Your task to perform on an android device: change alarm snooze length Image 0: 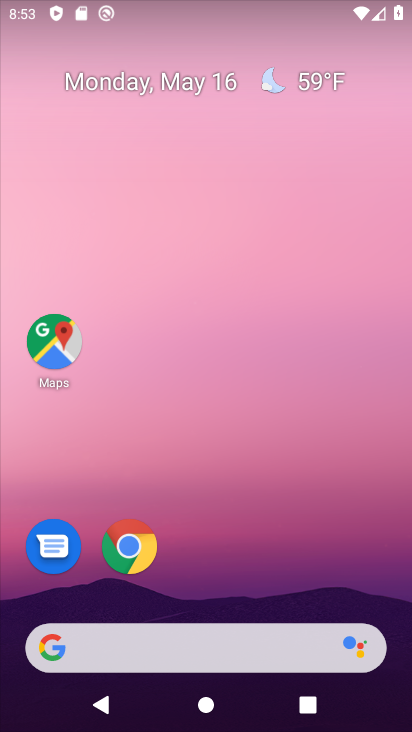
Step 0: drag from (316, 610) to (271, 165)
Your task to perform on an android device: change alarm snooze length Image 1: 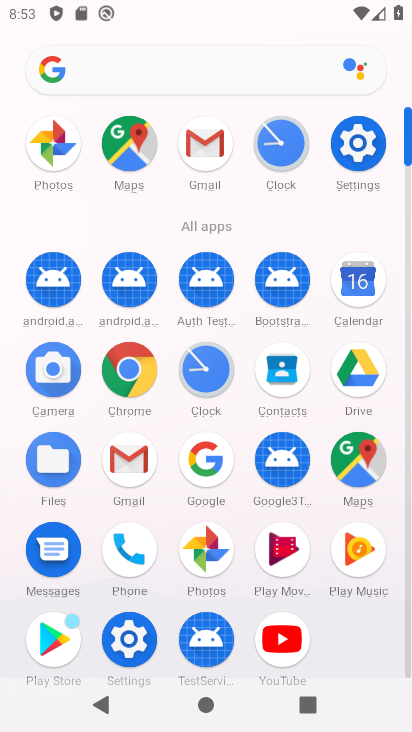
Step 1: click (297, 139)
Your task to perform on an android device: change alarm snooze length Image 2: 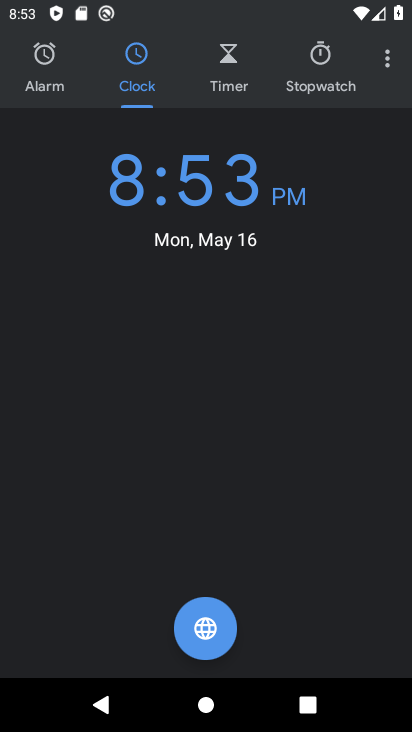
Step 2: click (394, 66)
Your task to perform on an android device: change alarm snooze length Image 3: 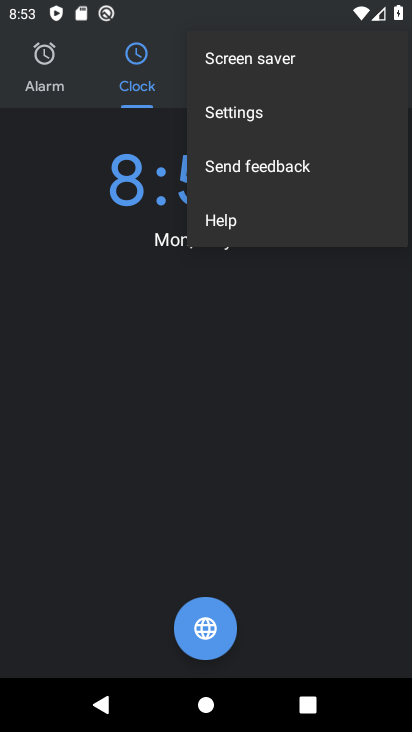
Step 3: click (279, 132)
Your task to perform on an android device: change alarm snooze length Image 4: 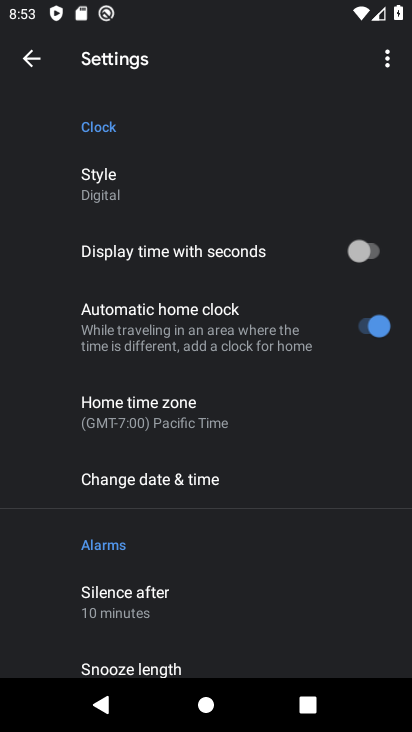
Step 4: click (123, 669)
Your task to perform on an android device: change alarm snooze length Image 5: 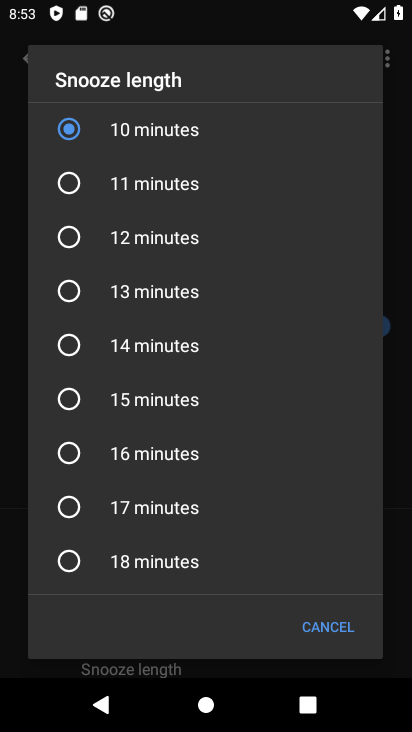
Step 5: click (71, 578)
Your task to perform on an android device: change alarm snooze length Image 6: 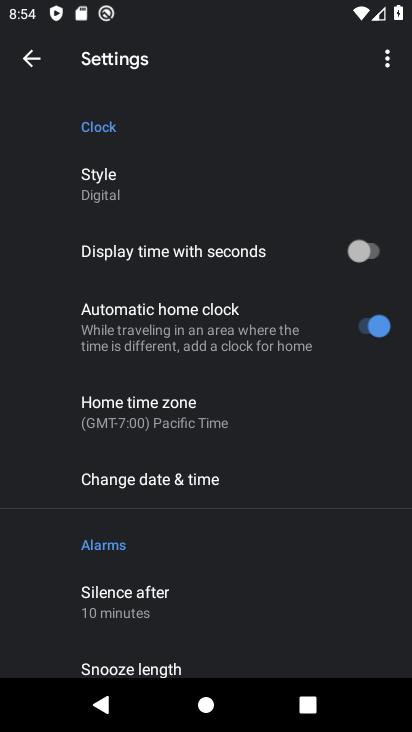
Step 6: task complete